Your task to perform on an android device: Play the last video I watched on Youtube Image 0: 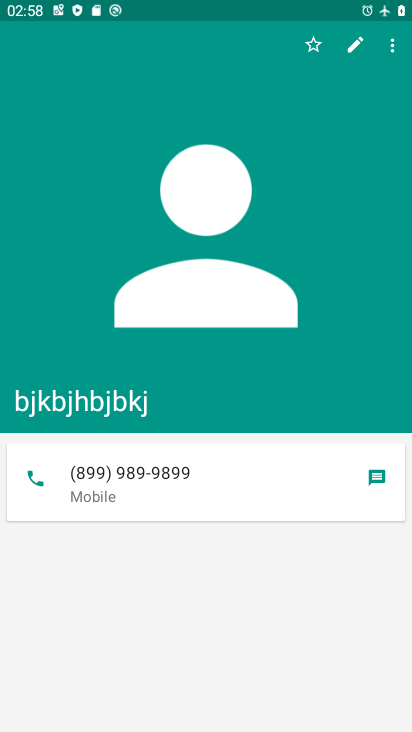
Step 0: press home button
Your task to perform on an android device: Play the last video I watched on Youtube Image 1: 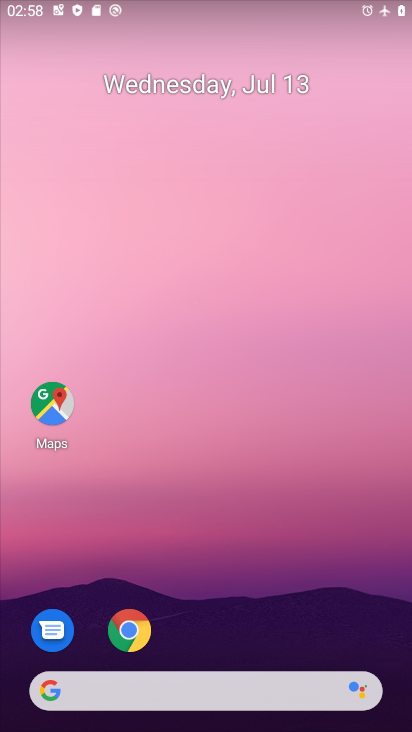
Step 1: drag from (228, 629) to (242, 181)
Your task to perform on an android device: Play the last video I watched on Youtube Image 2: 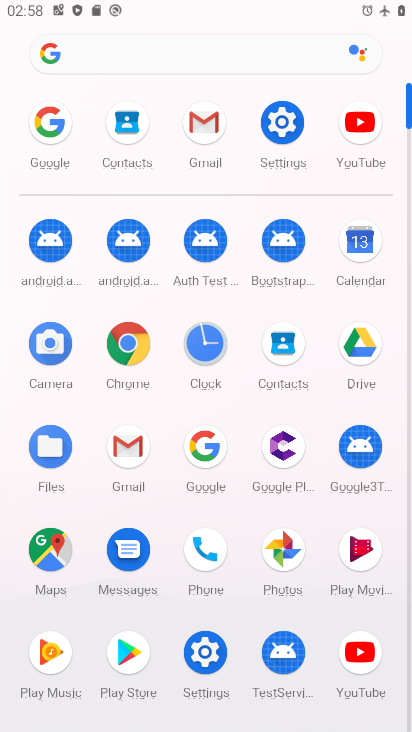
Step 2: click (341, 651)
Your task to perform on an android device: Play the last video I watched on Youtube Image 3: 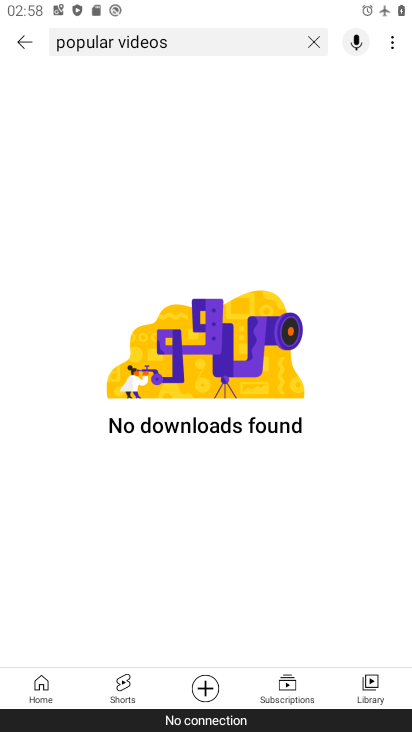
Step 3: click (370, 685)
Your task to perform on an android device: Play the last video I watched on Youtube Image 4: 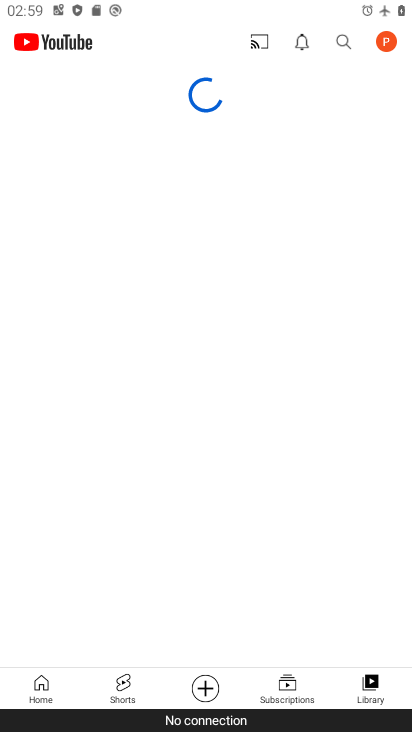
Step 4: task complete